Your task to perform on an android device: Do I have any events this weekend? Image 0: 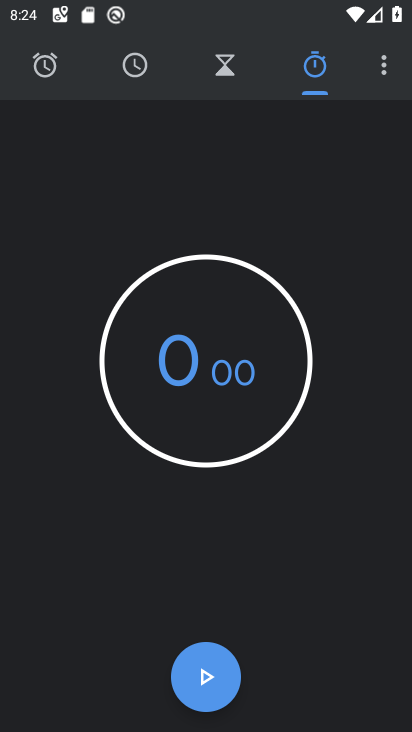
Step 0: press home button
Your task to perform on an android device: Do I have any events this weekend? Image 1: 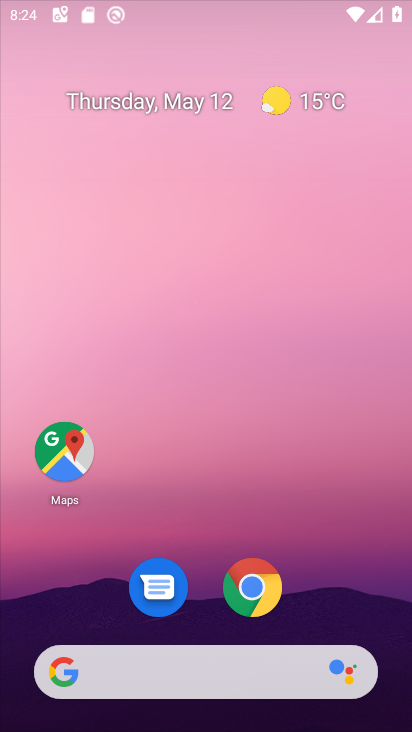
Step 1: drag from (390, 591) to (317, 95)
Your task to perform on an android device: Do I have any events this weekend? Image 2: 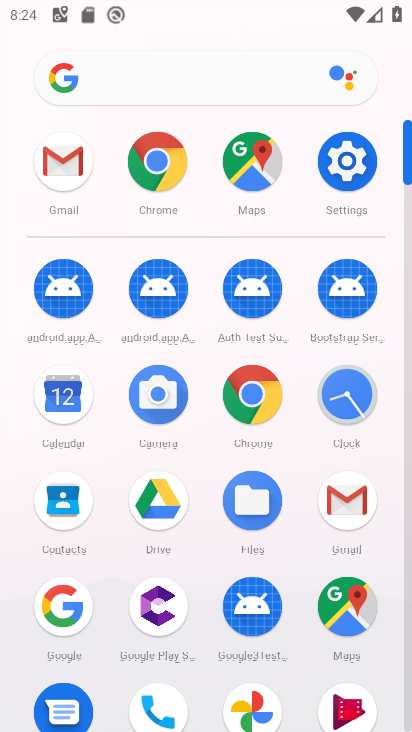
Step 2: click (74, 403)
Your task to perform on an android device: Do I have any events this weekend? Image 3: 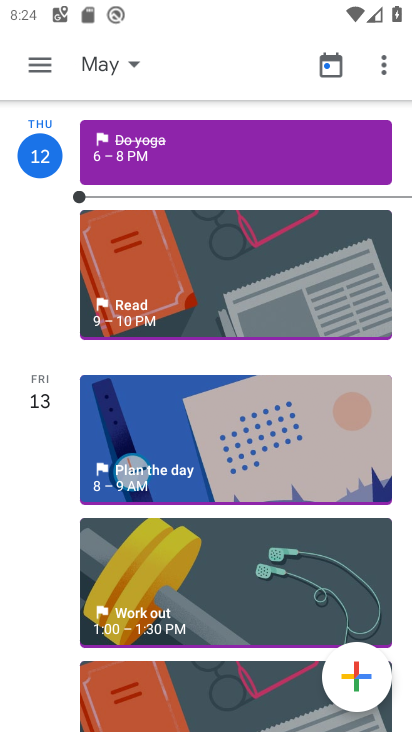
Step 3: click (41, 70)
Your task to perform on an android device: Do I have any events this weekend? Image 4: 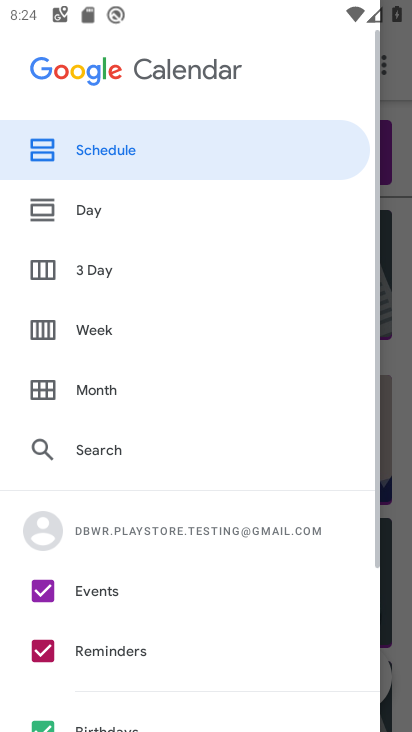
Step 4: click (122, 160)
Your task to perform on an android device: Do I have any events this weekend? Image 5: 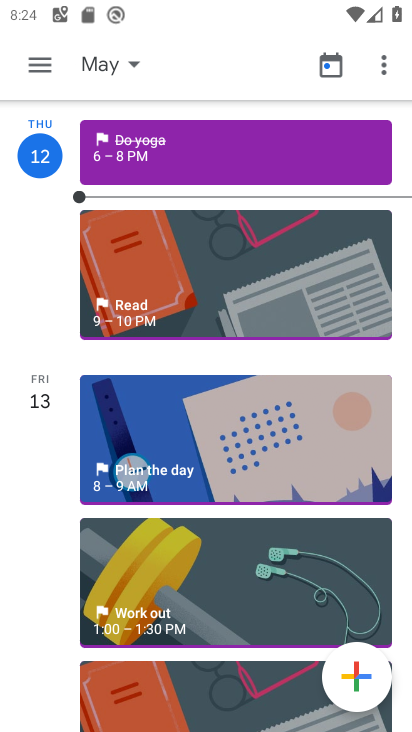
Step 5: task complete